Your task to perform on an android device: turn on javascript in the chrome app Image 0: 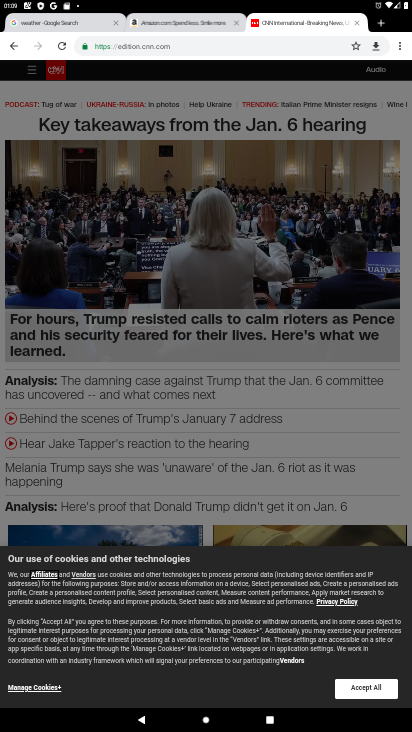
Step 0: drag from (403, 44) to (320, 305)
Your task to perform on an android device: turn on javascript in the chrome app Image 1: 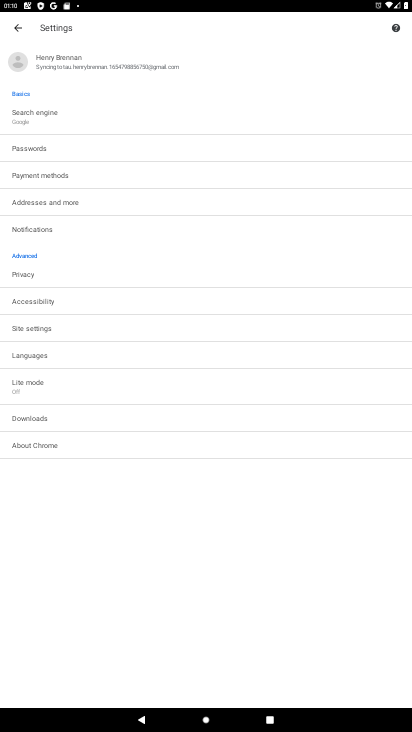
Step 1: click (19, 329)
Your task to perform on an android device: turn on javascript in the chrome app Image 2: 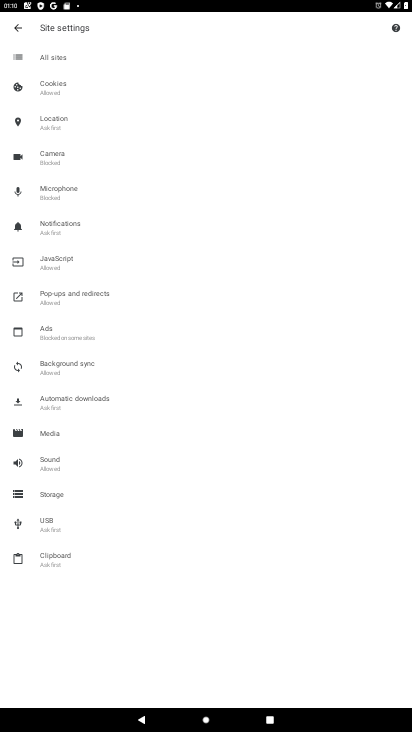
Step 2: click (45, 262)
Your task to perform on an android device: turn on javascript in the chrome app Image 3: 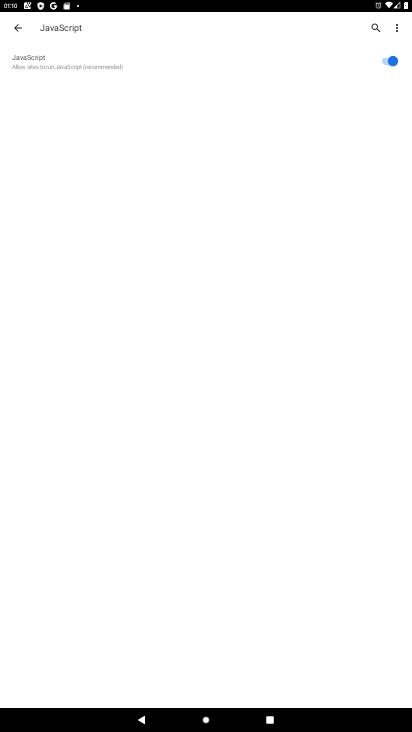
Step 3: task complete